Your task to perform on an android device: star an email in the gmail app Image 0: 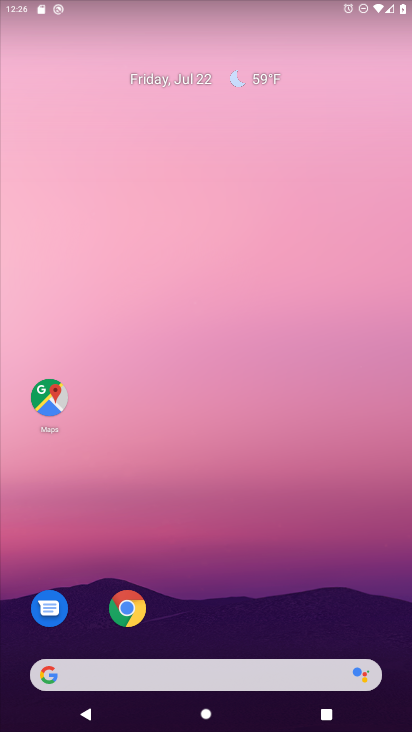
Step 0: drag from (175, 185) to (108, 49)
Your task to perform on an android device: star an email in the gmail app Image 1: 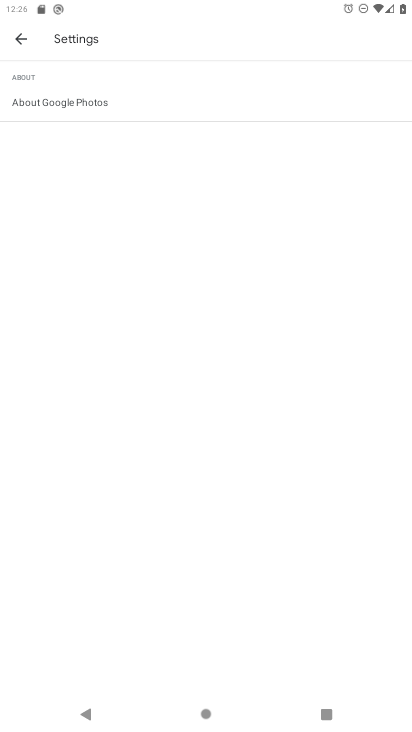
Step 1: press home button
Your task to perform on an android device: star an email in the gmail app Image 2: 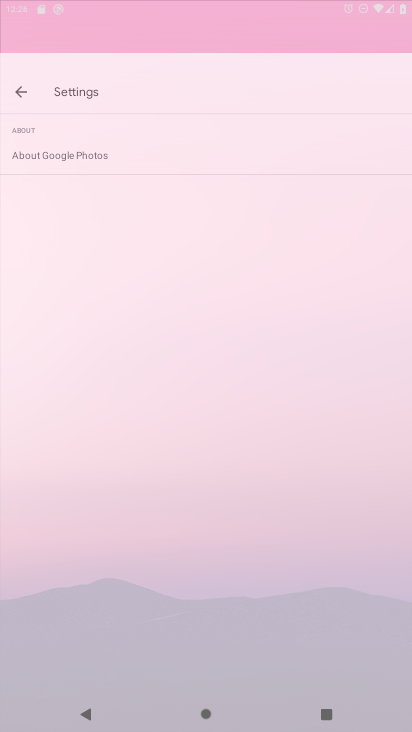
Step 2: drag from (344, 682) to (94, 17)
Your task to perform on an android device: star an email in the gmail app Image 3: 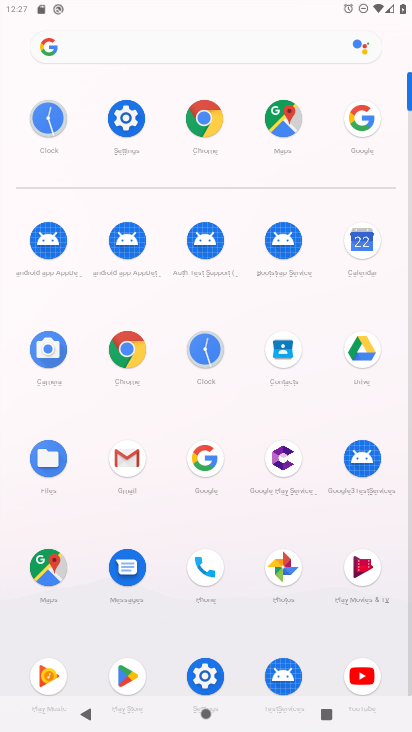
Step 3: click (122, 462)
Your task to perform on an android device: star an email in the gmail app Image 4: 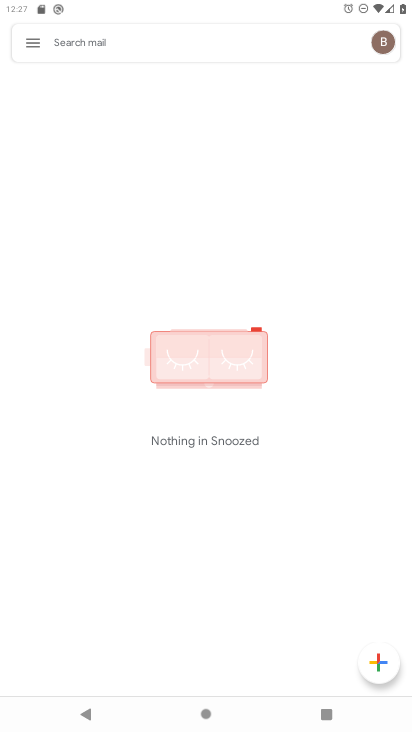
Step 4: click (31, 38)
Your task to perform on an android device: star an email in the gmail app Image 5: 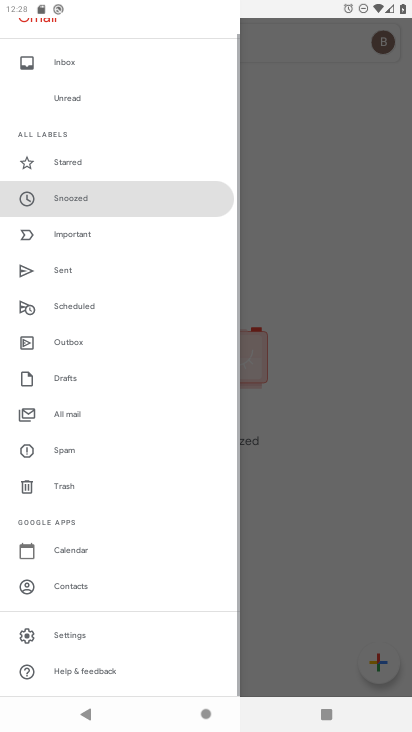
Step 5: click (64, 56)
Your task to perform on an android device: star an email in the gmail app Image 6: 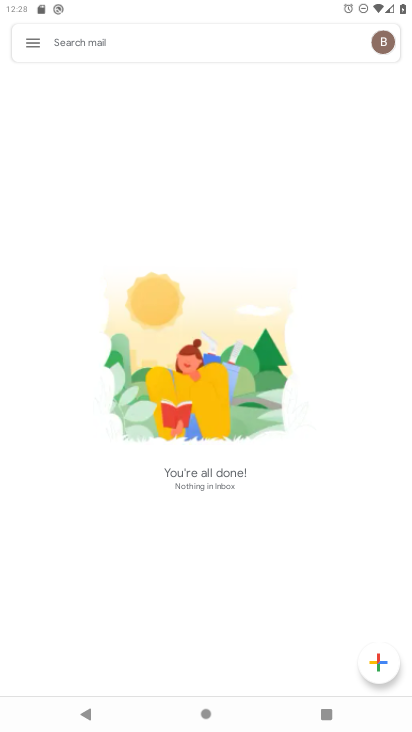
Step 6: task complete